Your task to perform on an android device: toggle show notifications on the lock screen Image 0: 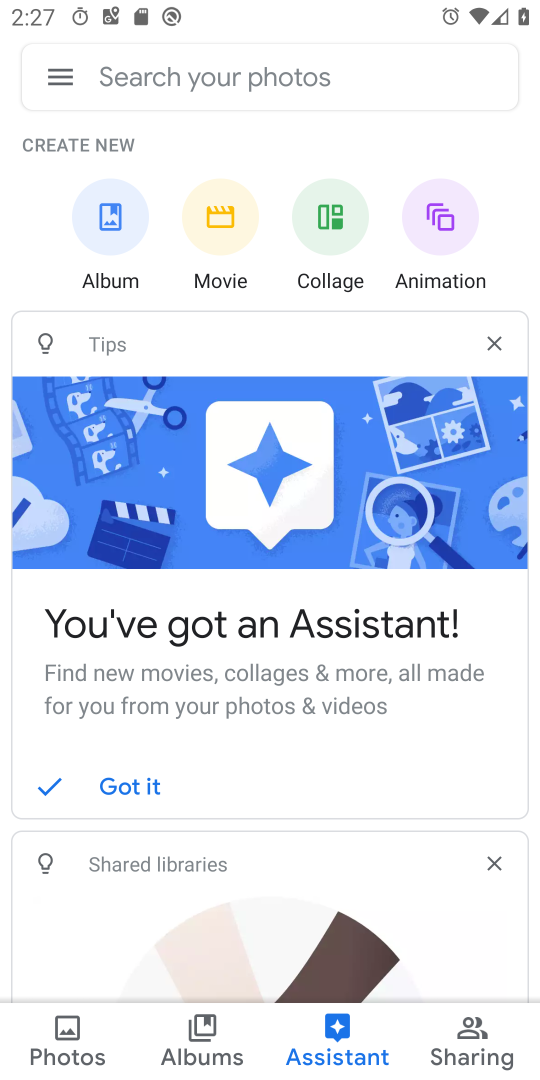
Step 0: press back button
Your task to perform on an android device: toggle show notifications on the lock screen Image 1: 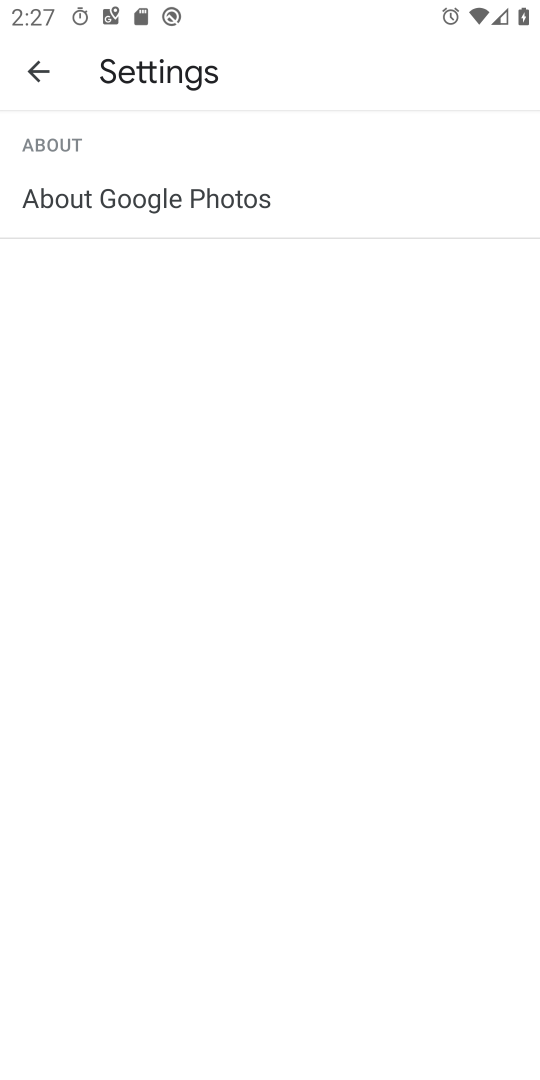
Step 1: press home button
Your task to perform on an android device: toggle show notifications on the lock screen Image 2: 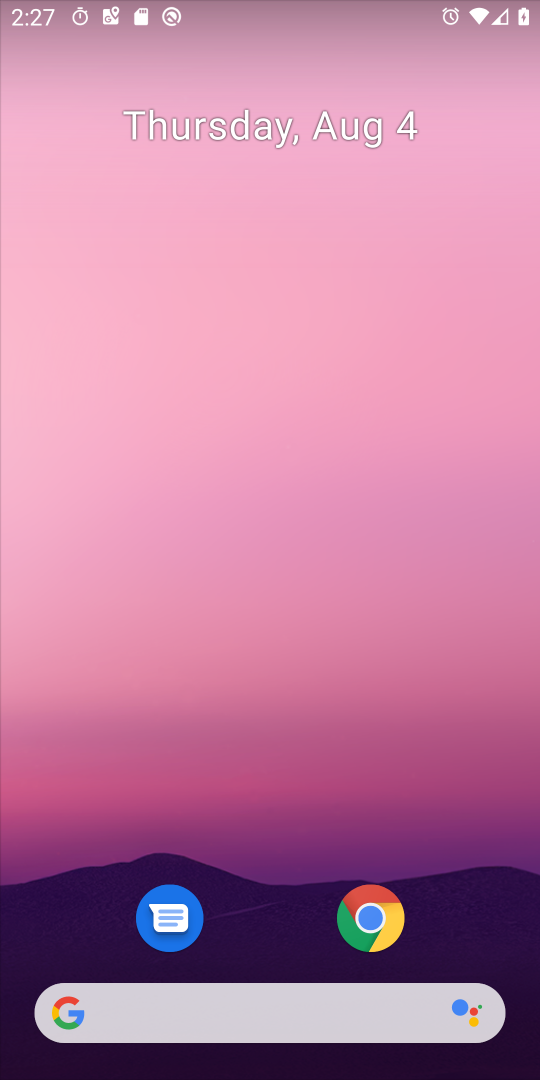
Step 2: drag from (232, 922) to (281, 384)
Your task to perform on an android device: toggle show notifications on the lock screen Image 3: 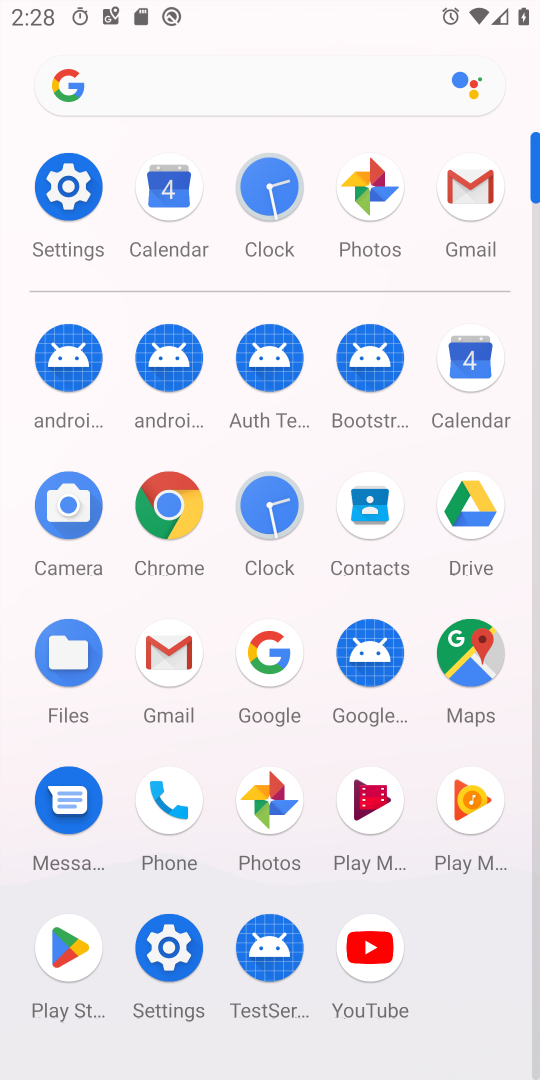
Step 3: click (91, 200)
Your task to perform on an android device: toggle show notifications on the lock screen Image 4: 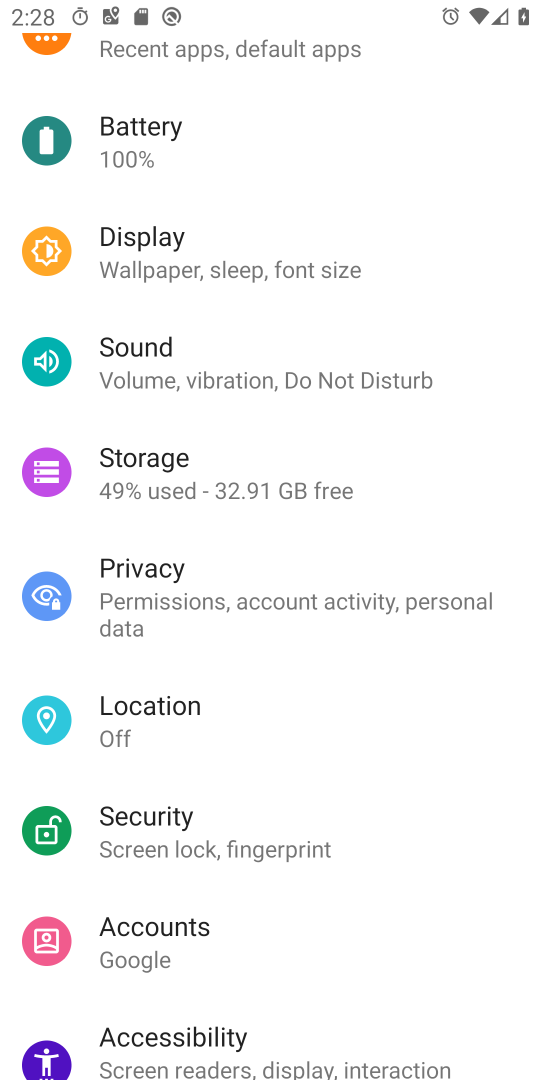
Step 4: drag from (247, 304) to (252, 798)
Your task to perform on an android device: toggle show notifications on the lock screen Image 5: 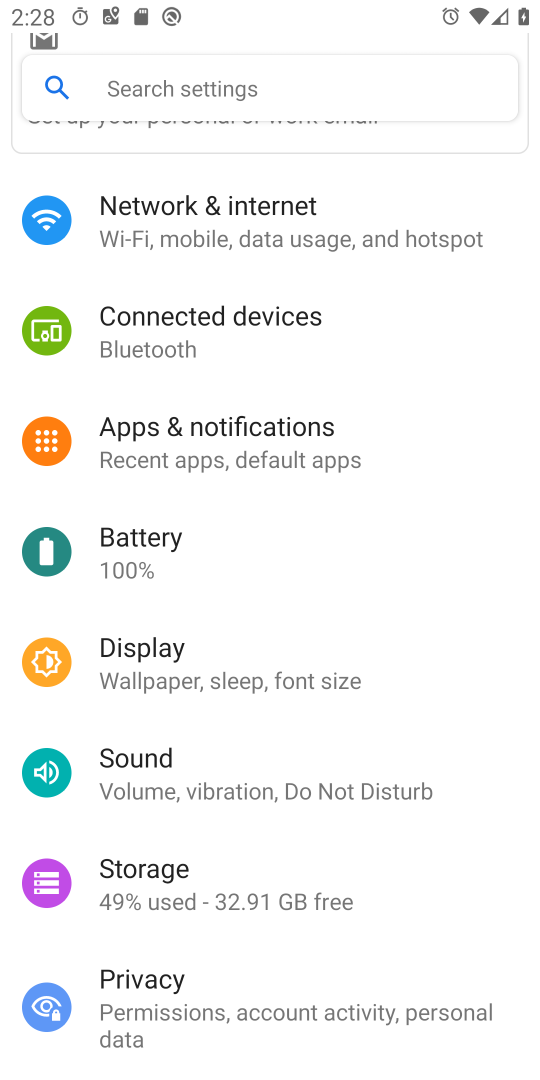
Step 5: click (256, 454)
Your task to perform on an android device: toggle show notifications on the lock screen Image 6: 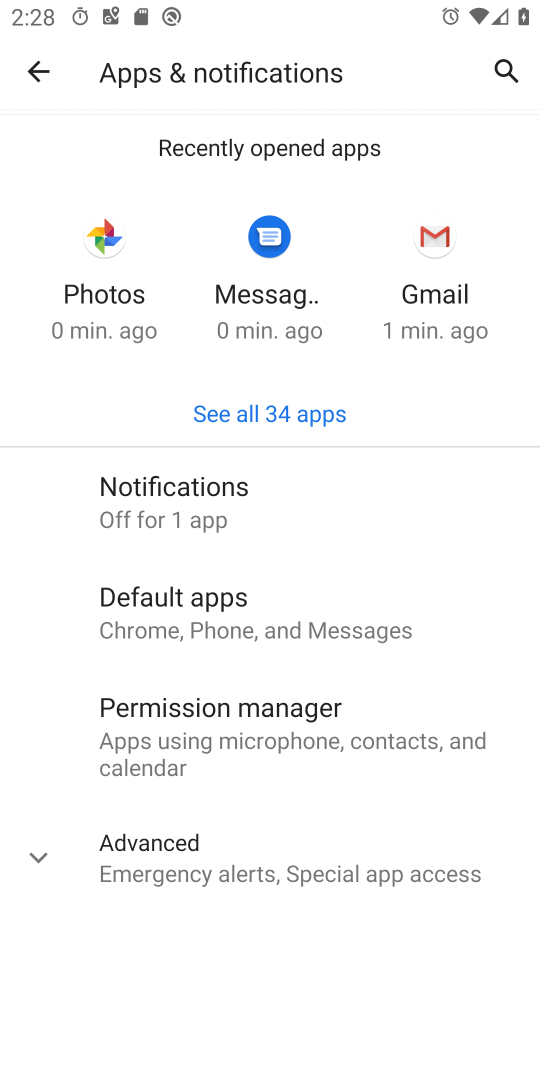
Step 6: click (283, 479)
Your task to perform on an android device: toggle show notifications on the lock screen Image 7: 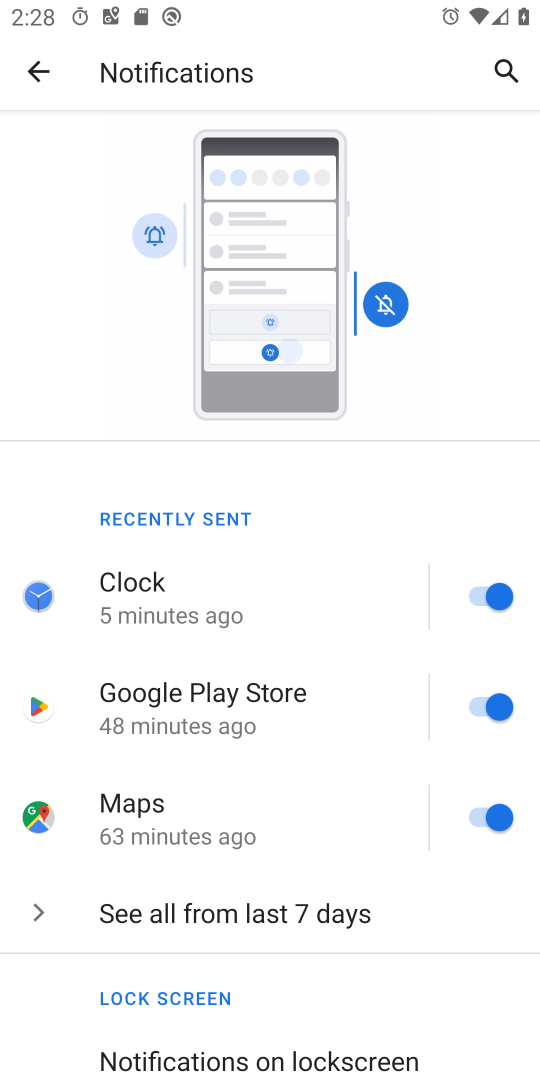
Step 7: drag from (295, 1073) to (327, 796)
Your task to perform on an android device: toggle show notifications on the lock screen Image 8: 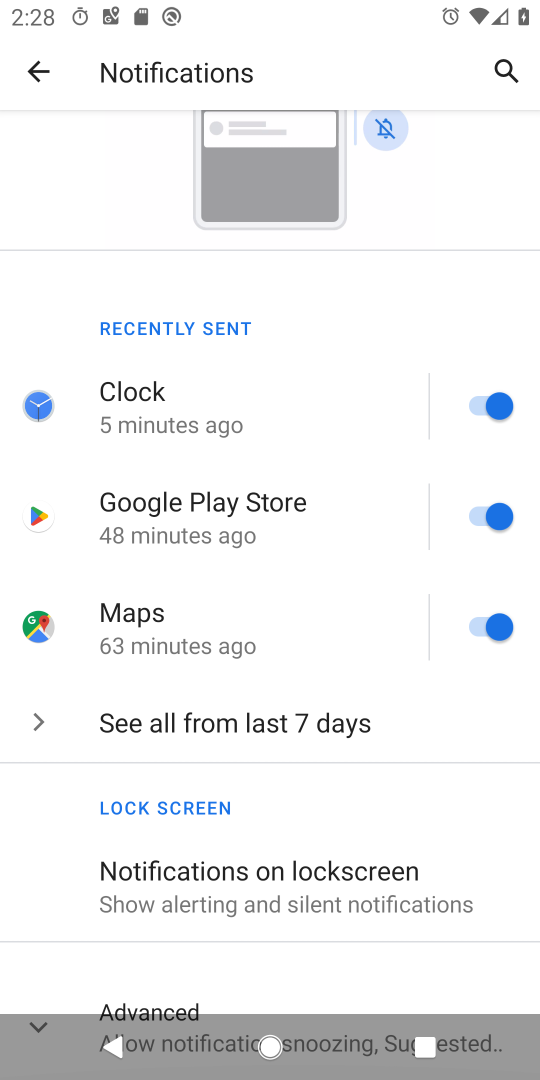
Step 8: click (302, 888)
Your task to perform on an android device: toggle show notifications on the lock screen Image 9: 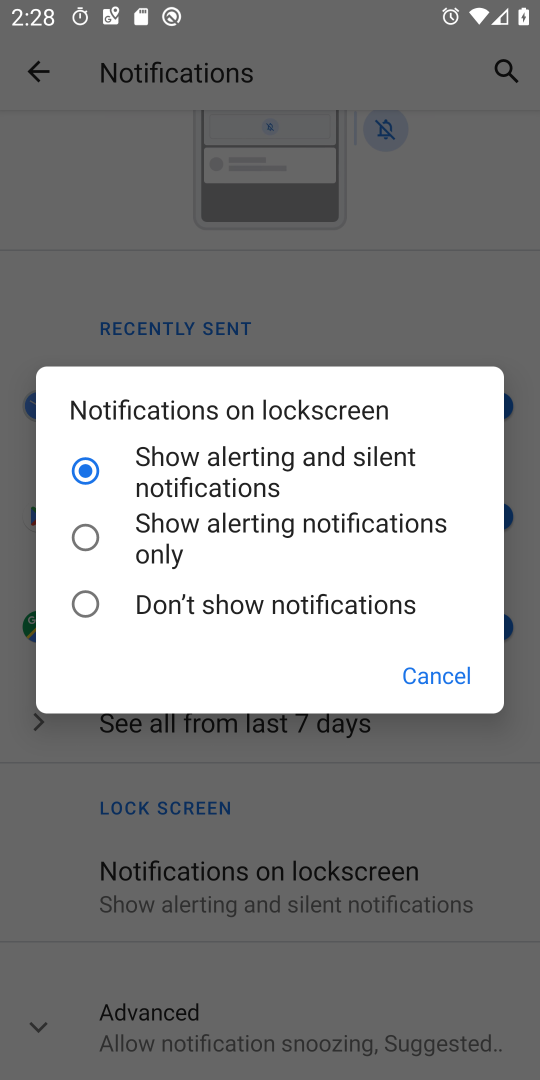
Step 9: click (296, 613)
Your task to perform on an android device: toggle show notifications on the lock screen Image 10: 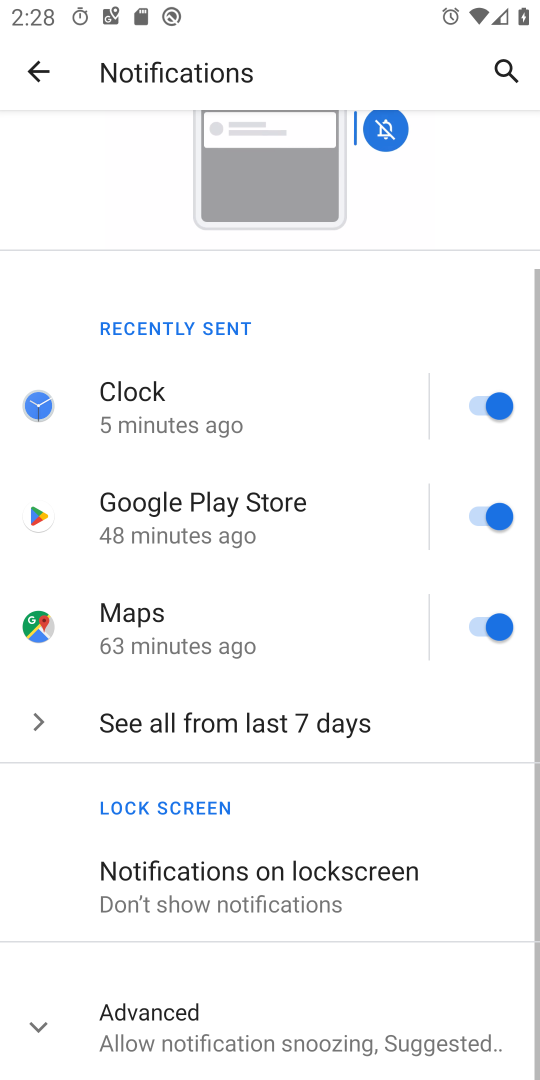
Step 10: task complete